Your task to perform on an android device: turn on bluetooth scan Image 0: 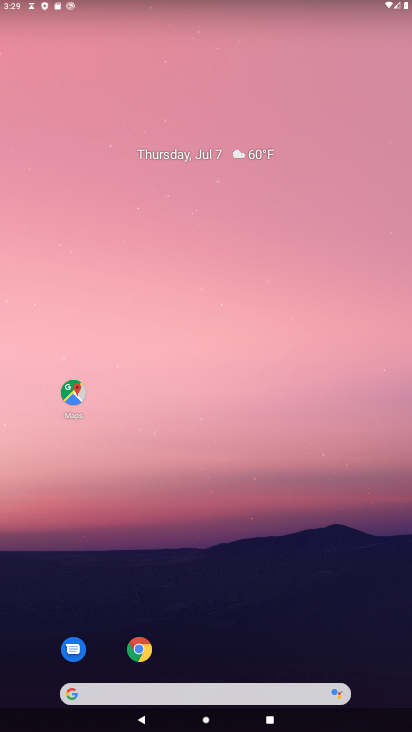
Step 0: drag from (172, 590) to (260, 20)
Your task to perform on an android device: turn on bluetooth scan Image 1: 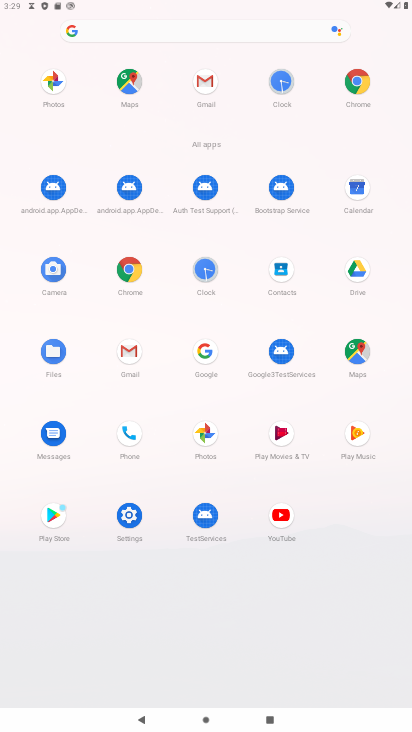
Step 1: click (120, 513)
Your task to perform on an android device: turn on bluetooth scan Image 2: 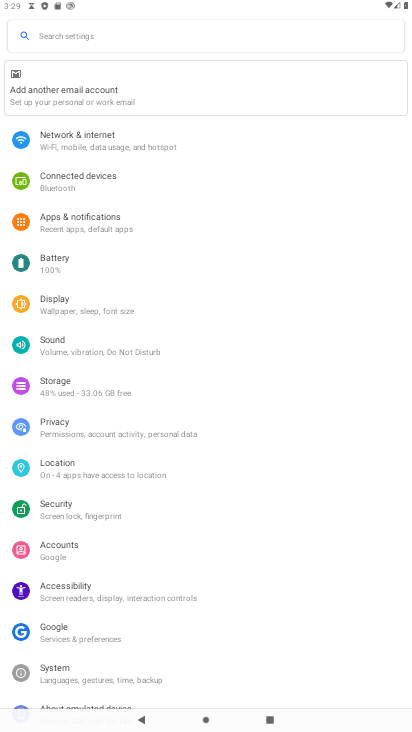
Step 2: click (118, 187)
Your task to perform on an android device: turn on bluetooth scan Image 3: 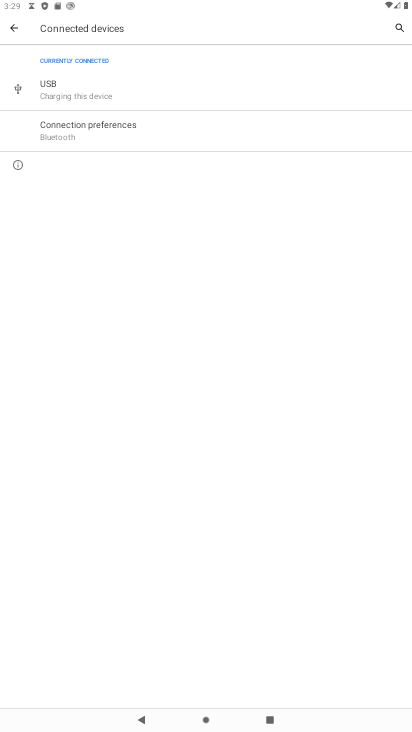
Step 3: click (141, 144)
Your task to perform on an android device: turn on bluetooth scan Image 4: 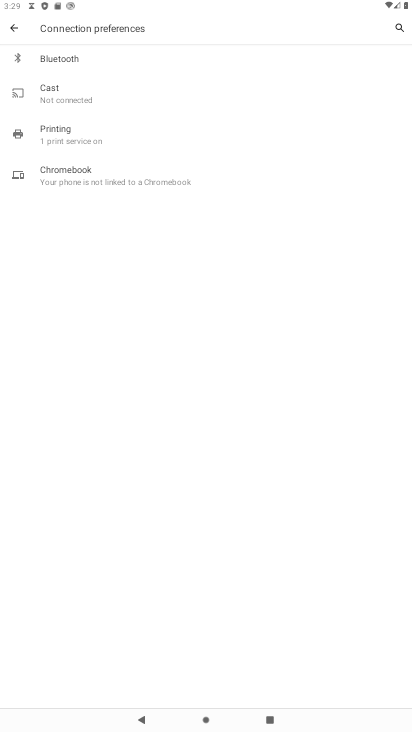
Step 4: click (130, 62)
Your task to perform on an android device: turn on bluetooth scan Image 5: 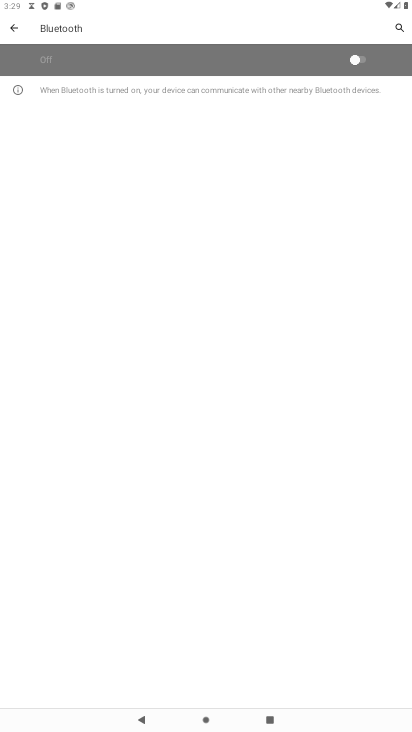
Step 5: click (372, 59)
Your task to perform on an android device: turn on bluetooth scan Image 6: 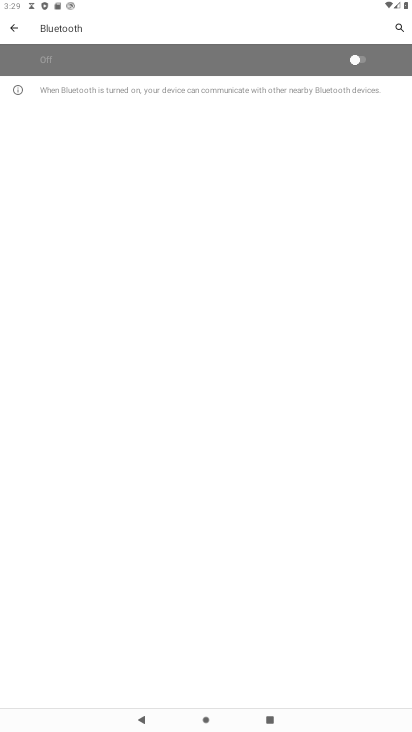
Step 6: task complete